Your task to perform on an android device: What is the news today? Image 0: 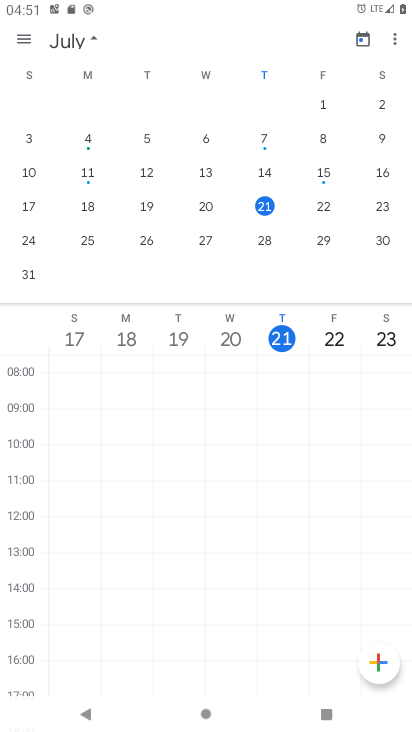
Step 0: press home button
Your task to perform on an android device: What is the news today? Image 1: 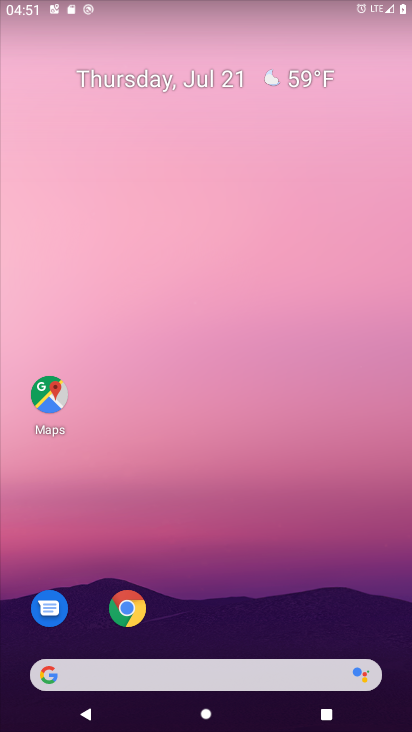
Step 1: drag from (297, 673) to (295, 155)
Your task to perform on an android device: What is the news today? Image 2: 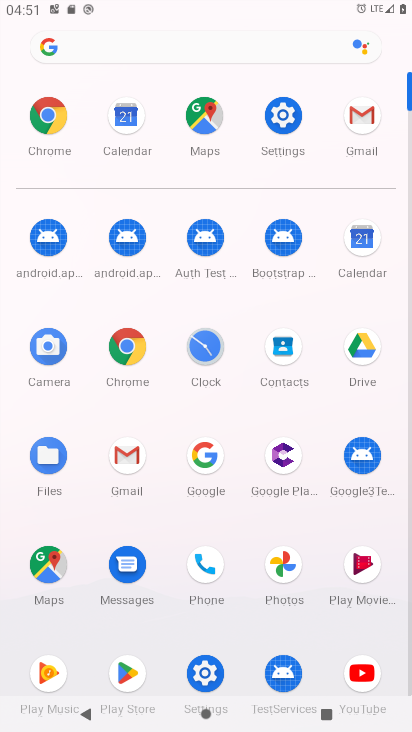
Step 2: click (128, 344)
Your task to perform on an android device: What is the news today? Image 3: 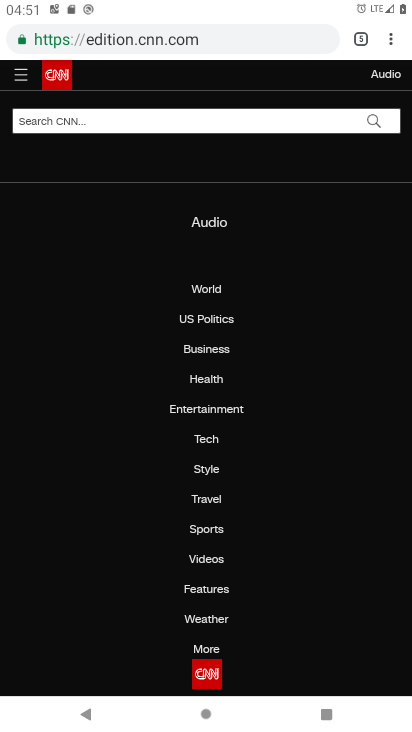
Step 3: click (177, 44)
Your task to perform on an android device: What is the news today? Image 4: 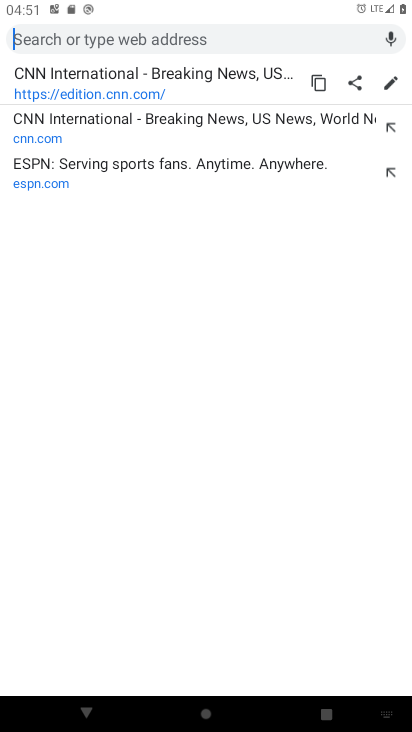
Step 4: type "news today"
Your task to perform on an android device: What is the news today? Image 5: 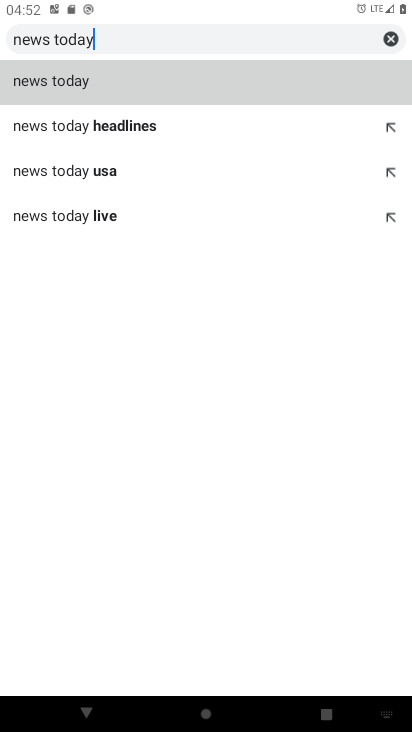
Step 5: click (103, 78)
Your task to perform on an android device: What is the news today? Image 6: 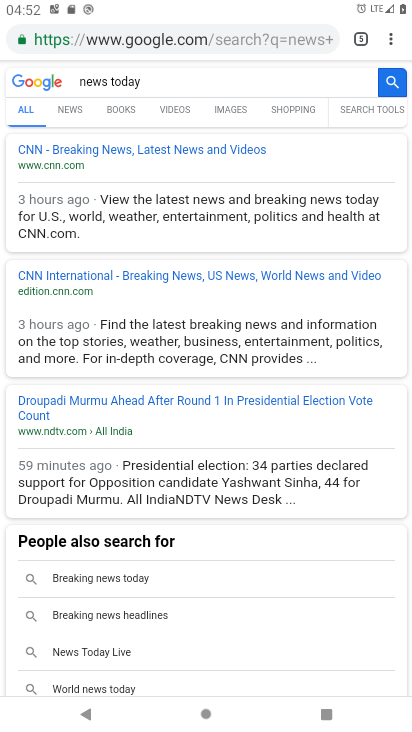
Step 6: task complete